Your task to perform on an android device: Open Google Chrome Image 0: 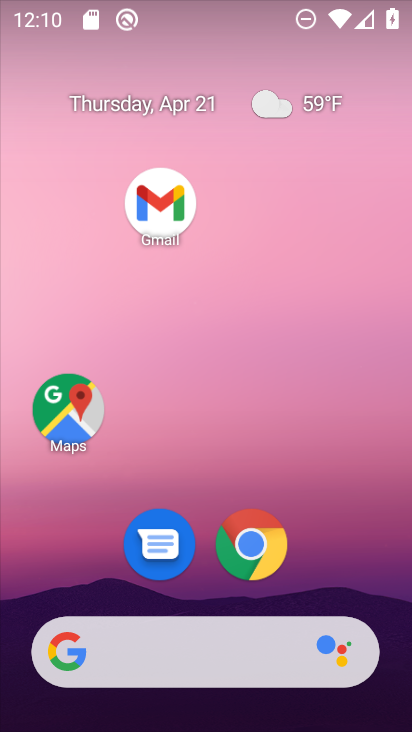
Step 0: click (266, 552)
Your task to perform on an android device: Open Google Chrome Image 1: 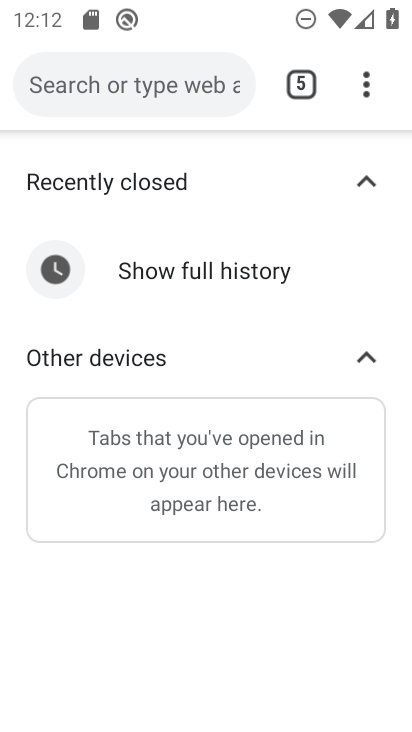
Step 1: task complete